Your task to perform on an android device: Go to display settings Image 0: 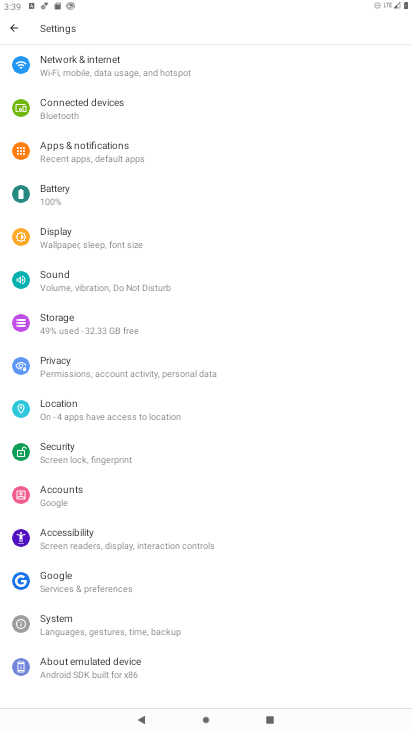
Step 0: click (66, 231)
Your task to perform on an android device: Go to display settings Image 1: 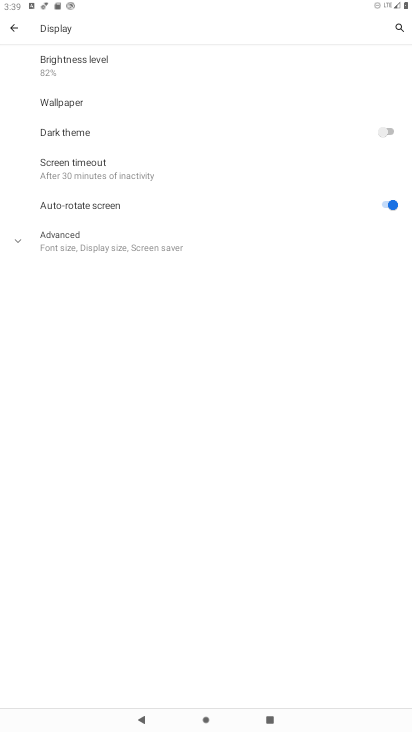
Step 1: click (16, 241)
Your task to perform on an android device: Go to display settings Image 2: 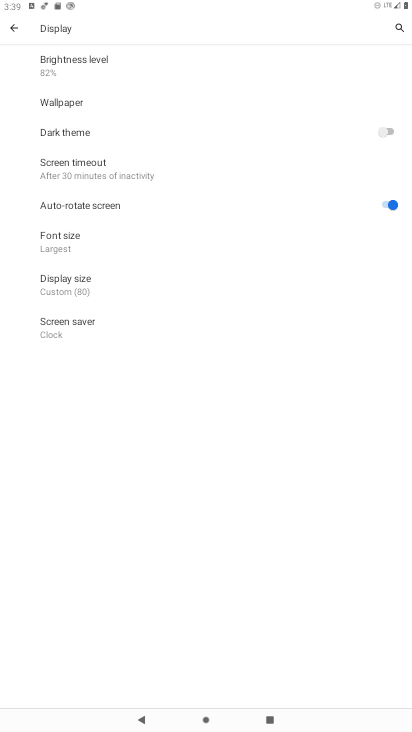
Step 2: task complete